Your task to perform on an android device: Go to Google maps Image 0: 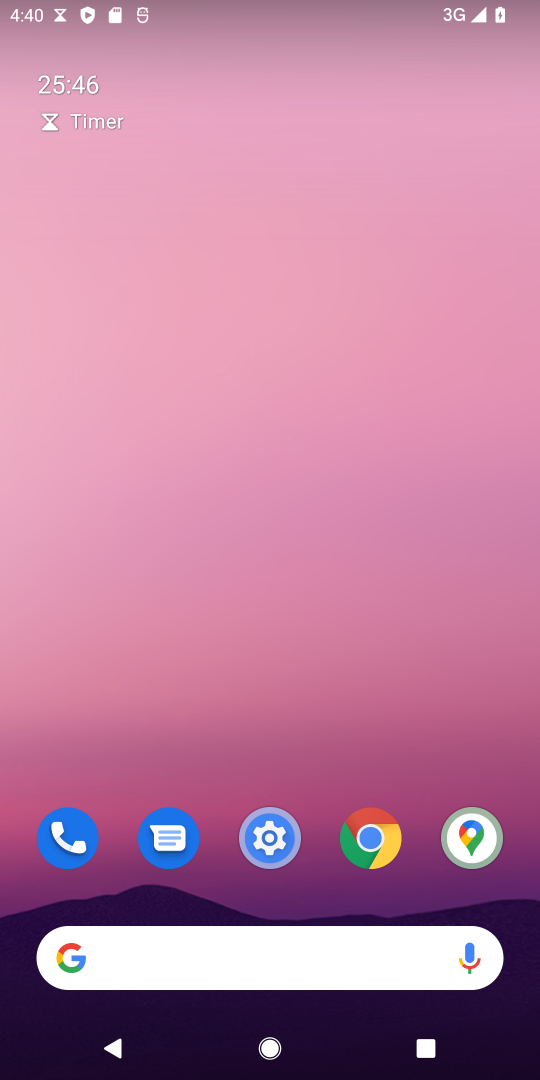
Step 0: drag from (318, 786) to (218, 158)
Your task to perform on an android device: Go to Google maps Image 1: 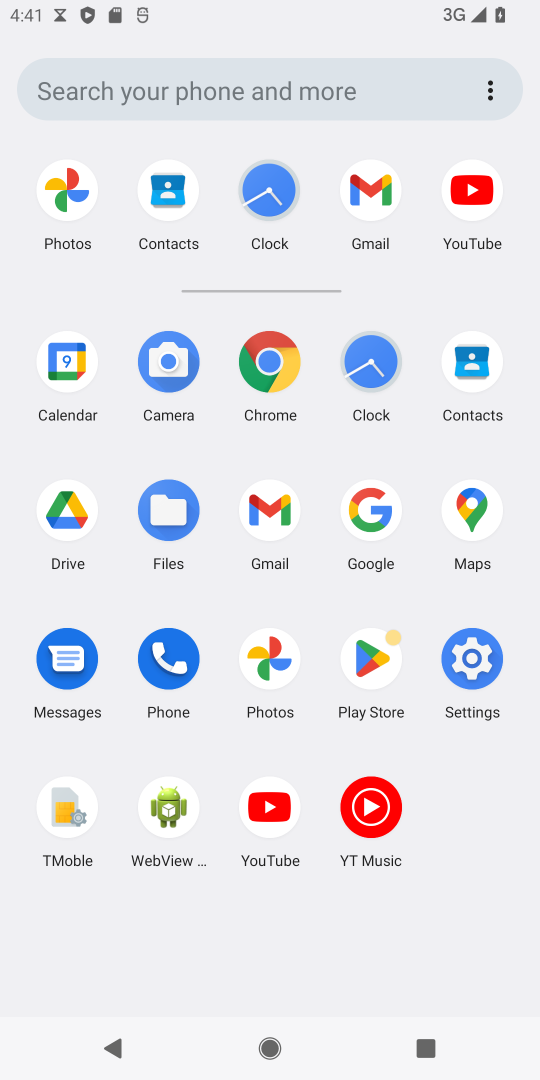
Step 1: click (473, 520)
Your task to perform on an android device: Go to Google maps Image 2: 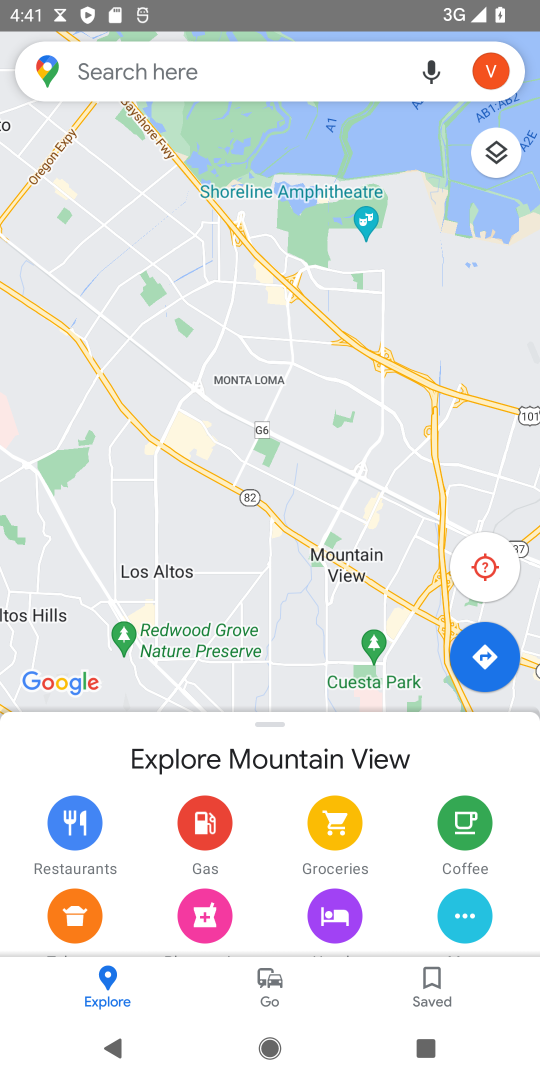
Step 2: task complete